Your task to perform on an android device: Turn off the flashlight Image 0: 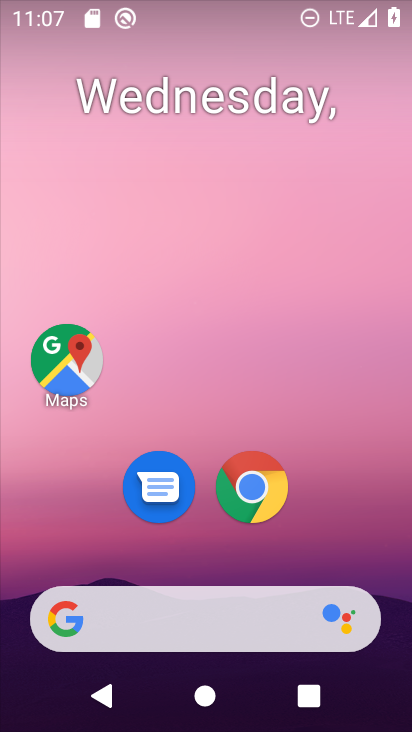
Step 0: drag from (330, 518) to (244, 93)
Your task to perform on an android device: Turn off the flashlight Image 1: 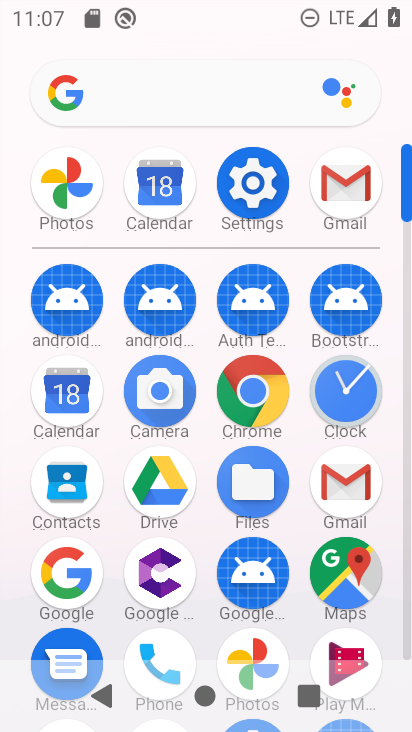
Step 1: click (242, 186)
Your task to perform on an android device: Turn off the flashlight Image 2: 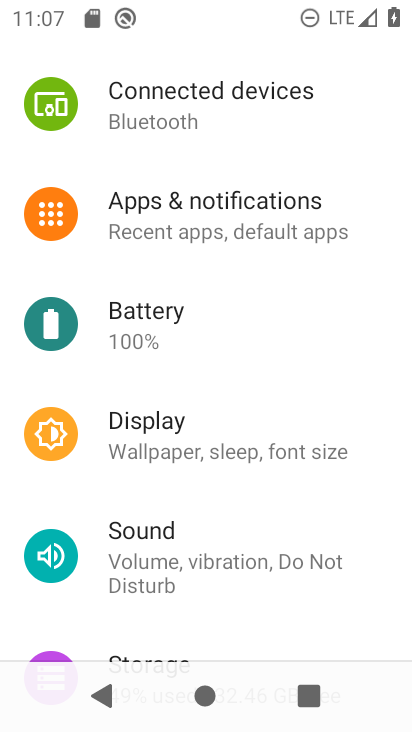
Step 2: drag from (205, 378) to (186, 136)
Your task to perform on an android device: Turn off the flashlight Image 3: 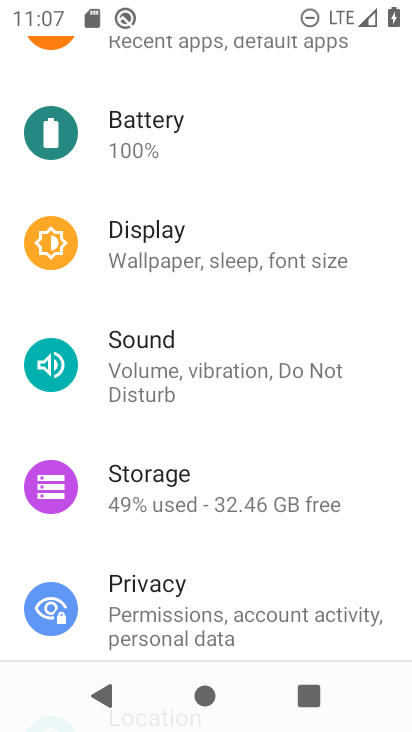
Step 3: drag from (227, 176) to (228, 480)
Your task to perform on an android device: Turn off the flashlight Image 4: 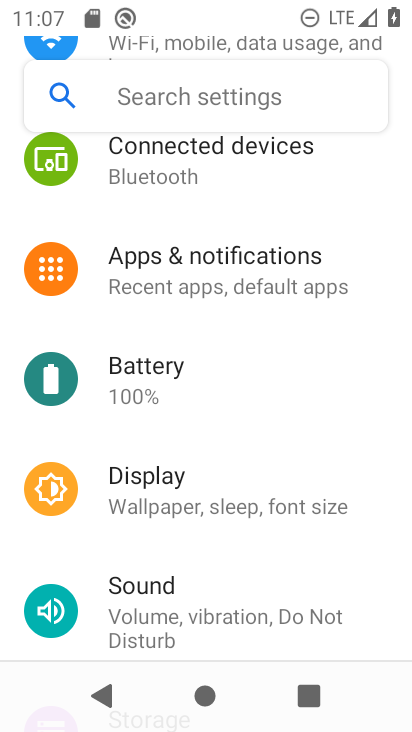
Step 4: click (141, 485)
Your task to perform on an android device: Turn off the flashlight Image 5: 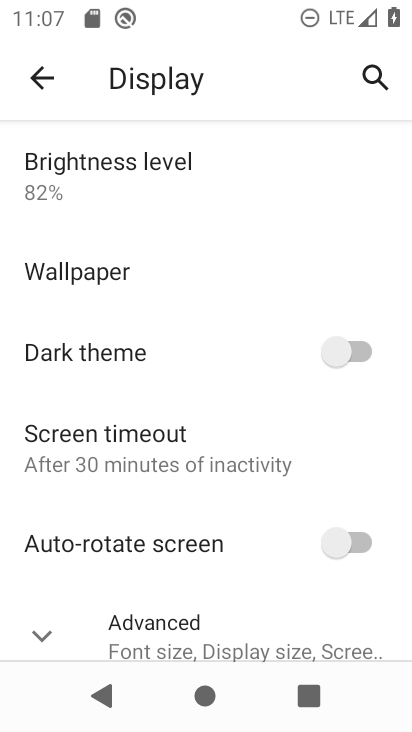
Step 5: task complete